Your task to perform on an android device: turn off translation in the chrome app Image 0: 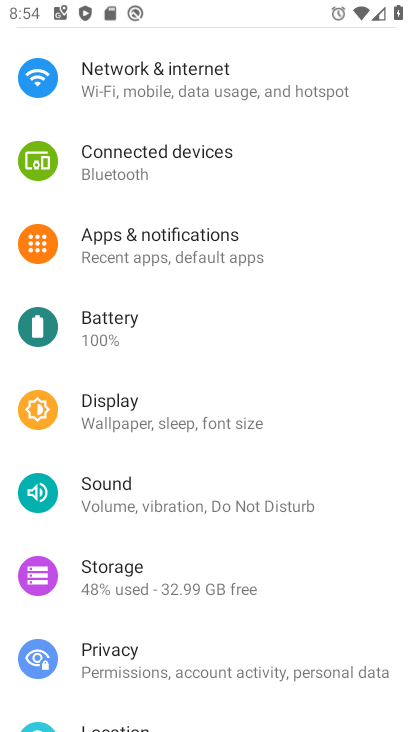
Step 0: press home button
Your task to perform on an android device: turn off translation in the chrome app Image 1: 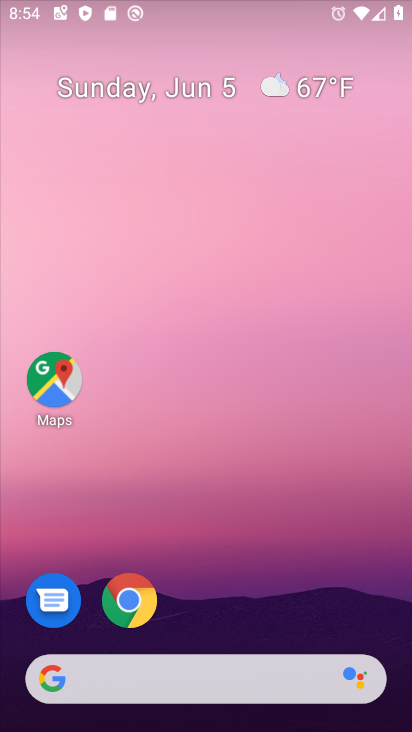
Step 1: drag from (400, 666) to (353, 119)
Your task to perform on an android device: turn off translation in the chrome app Image 2: 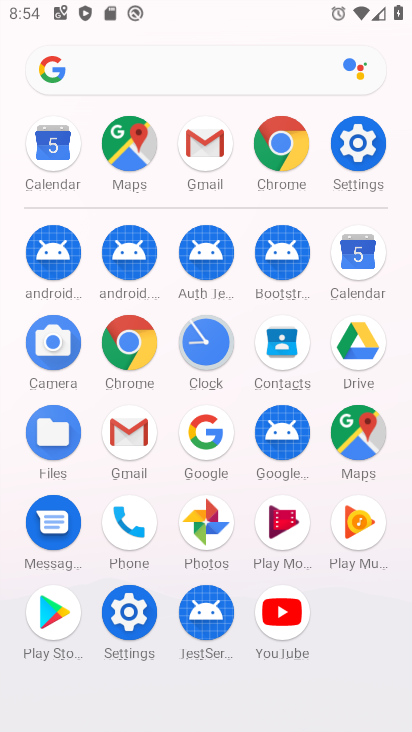
Step 2: click (274, 158)
Your task to perform on an android device: turn off translation in the chrome app Image 3: 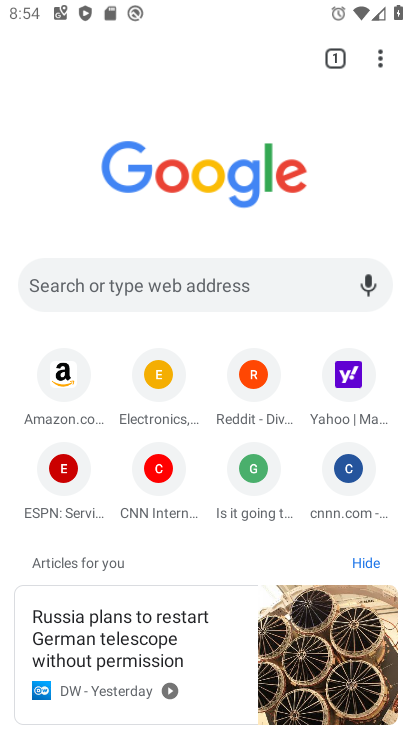
Step 3: click (384, 53)
Your task to perform on an android device: turn off translation in the chrome app Image 4: 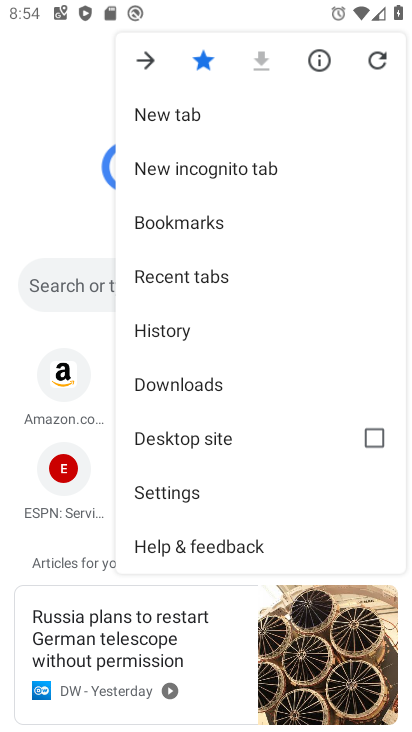
Step 4: click (198, 489)
Your task to perform on an android device: turn off translation in the chrome app Image 5: 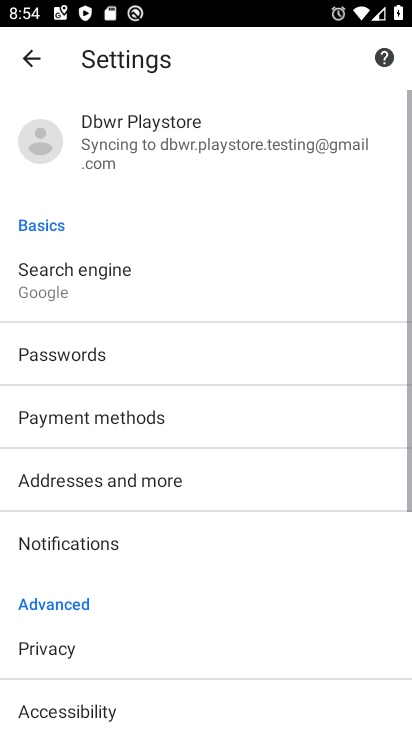
Step 5: drag from (163, 645) to (208, 95)
Your task to perform on an android device: turn off translation in the chrome app Image 6: 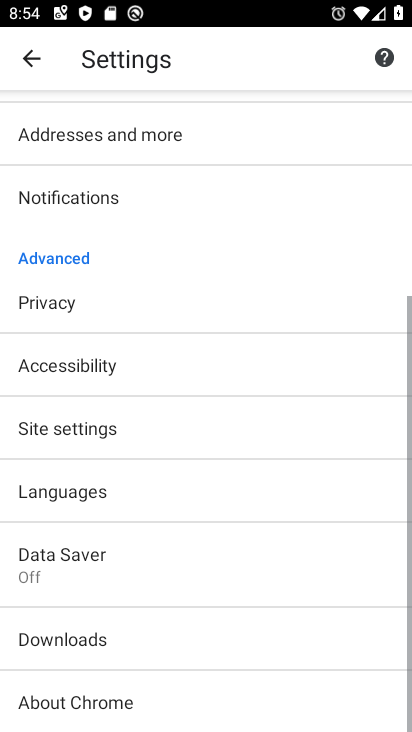
Step 6: click (51, 490)
Your task to perform on an android device: turn off translation in the chrome app Image 7: 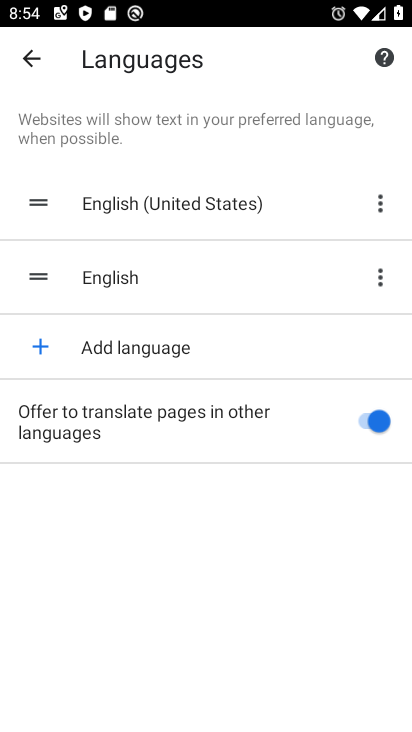
Step 7: click (338, 424)
Your task to perform on an android device: turn off translation in the chrome app Image 8: 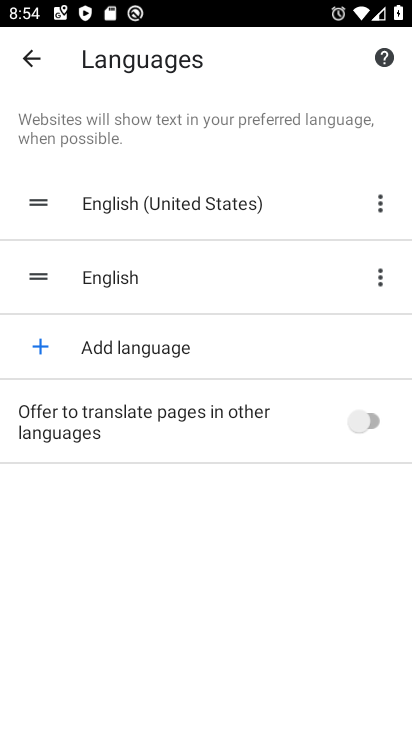
Step 8: task complete